Your task to perform on an android device: manage bookmarks in the chrome app Image 0: 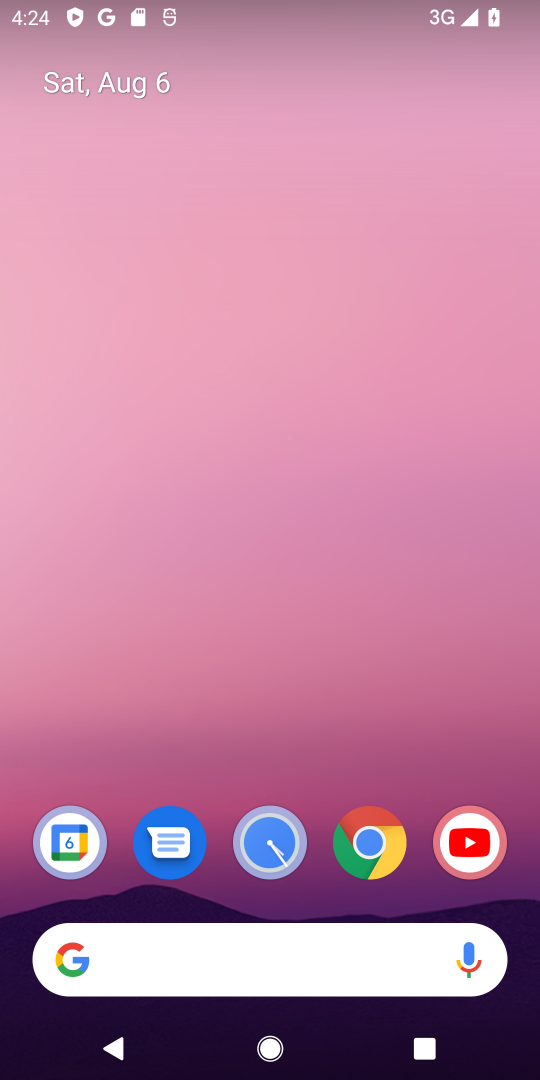
Step 0: click (371, 840)
Your task to perform on an android device: manage bookmarks in the chrome app Image 1: 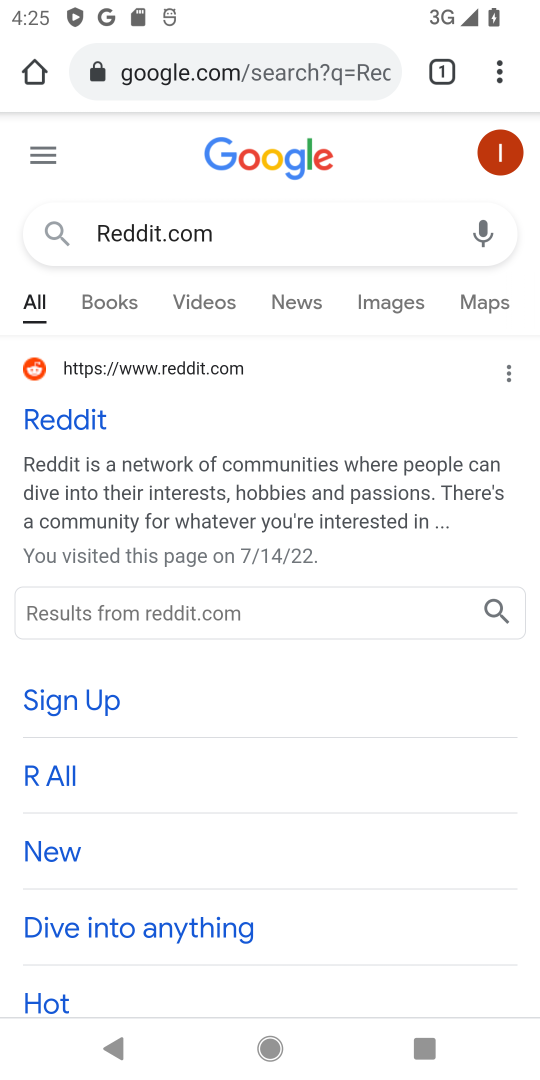
Step 1: drag from (367, 909) to (339, 468)
Your task to perform on an android device: manage bookmarks in the chrome app Image 2: 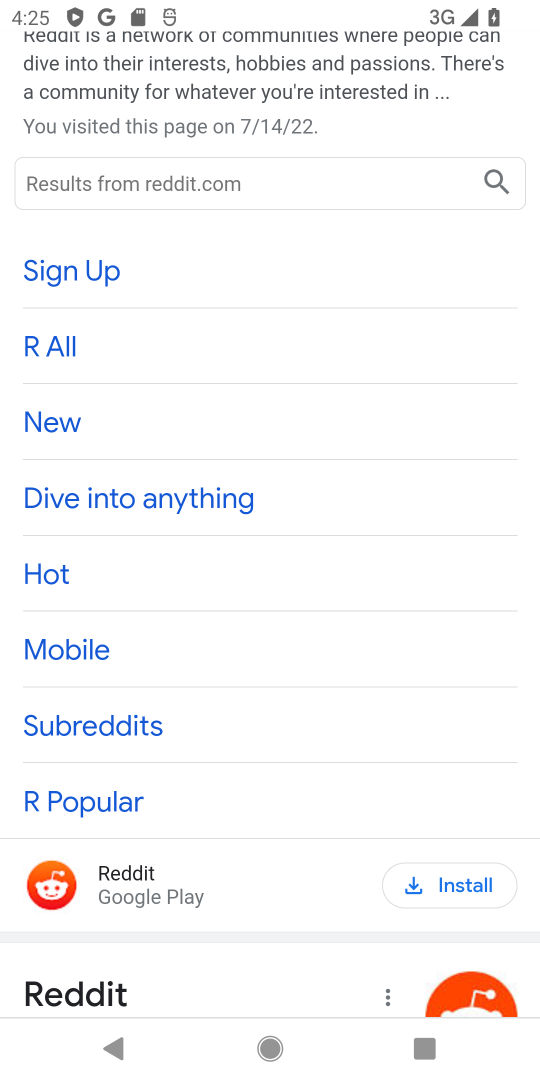
Step 2: drag from (384, 256) to (436, 919)
Your task to perform on an android device: manage bookmarks in the chrome app Image 3: 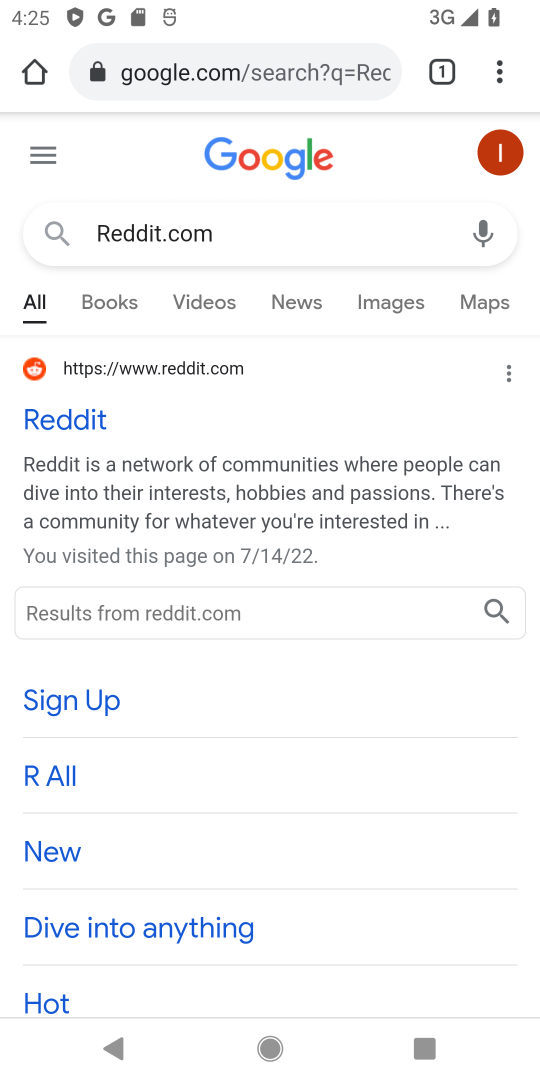
Step 3: click (499, 71)
Your task to perform on an android device: manage bookmarks in the chrome app Image 4: 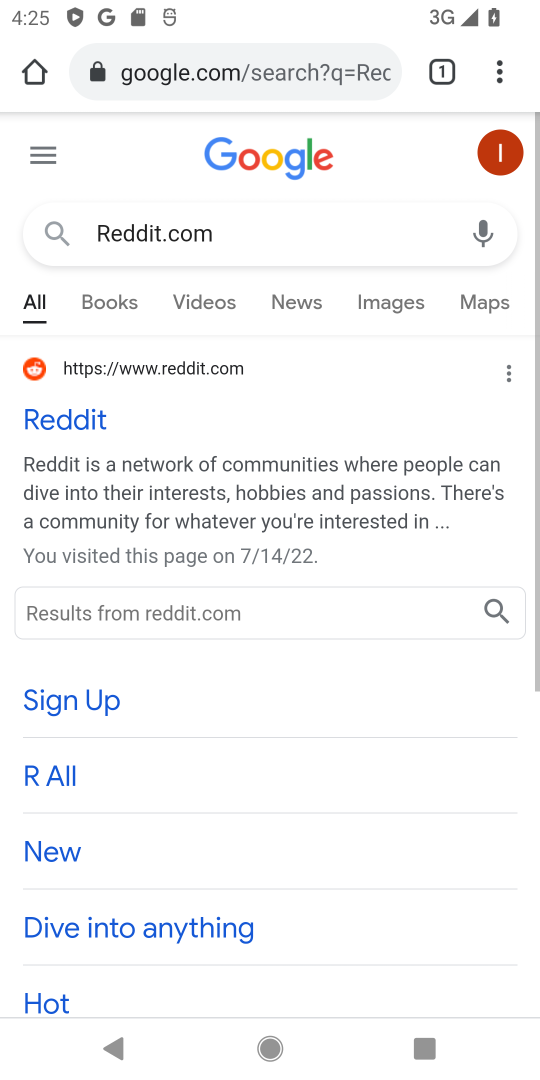
Step 4: click (499, 72)
Your task to perform on an android device: manage bookmarks in the chrome app Image 5: 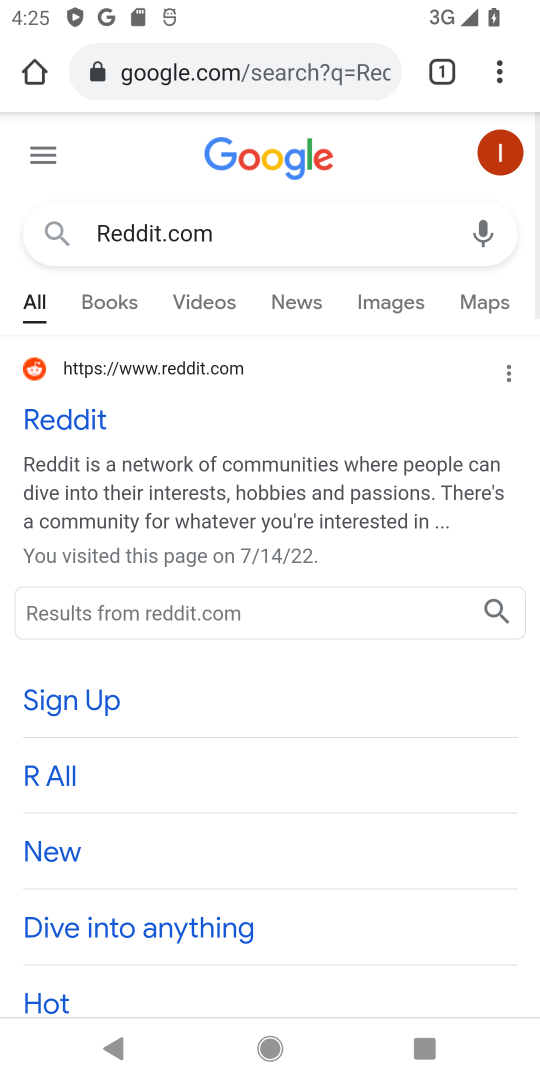
Step 5: click (499, 72)
Your task to perform on an android device: manage bookmarks in the chrome app Image 6: 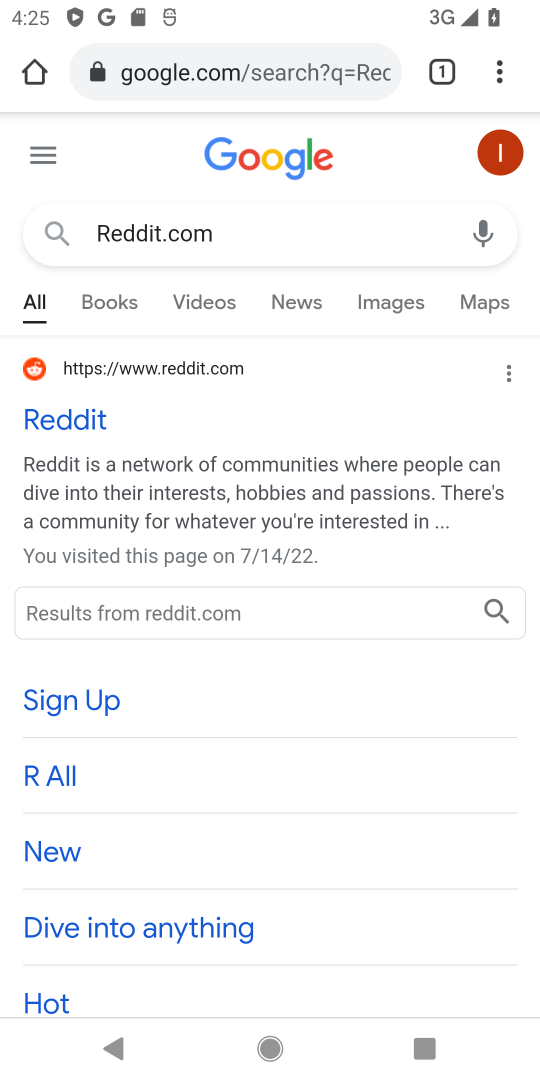
Step 6: click (499, 72)
Your task to perform on an android device: manage bookmarks in the chrome app Image 7: 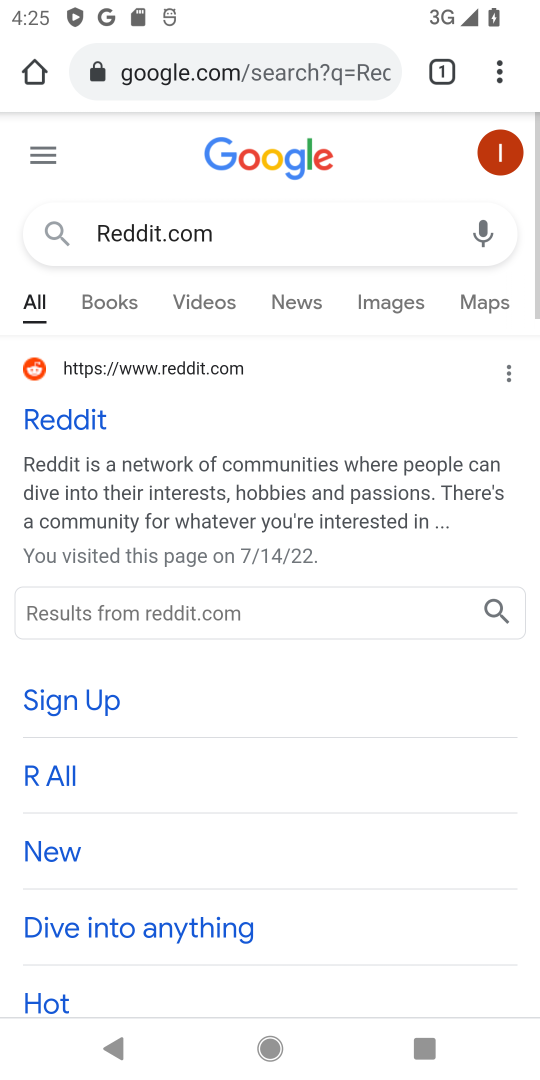
Step 7: click (499, 72)
Your task to perform on an android device: manage bookmarks in the chrome app Image 8: 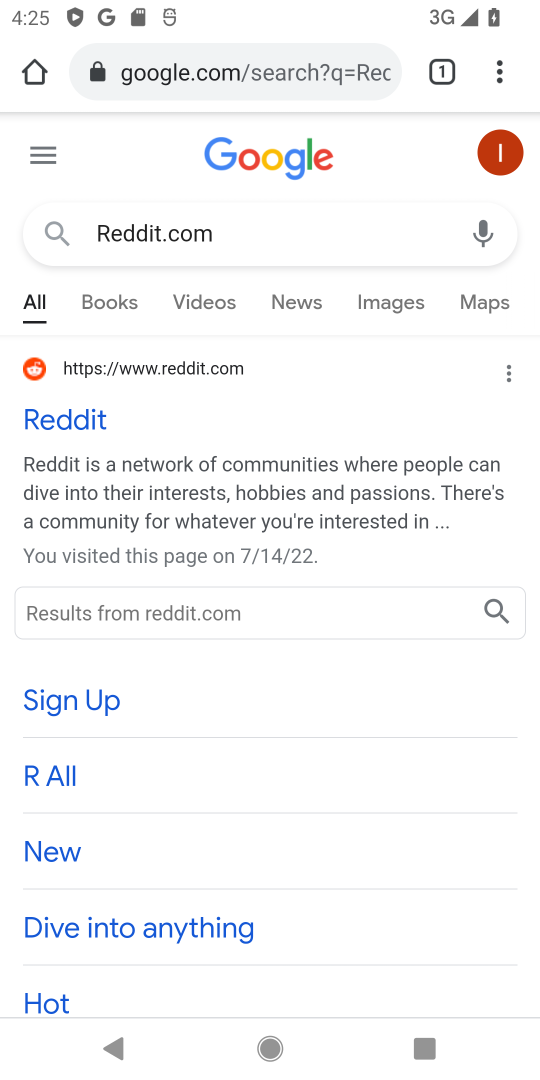
Step 8: click (493, 68)
Your task to perform on an android device: manage bookmarks in the chrome app Image 9: 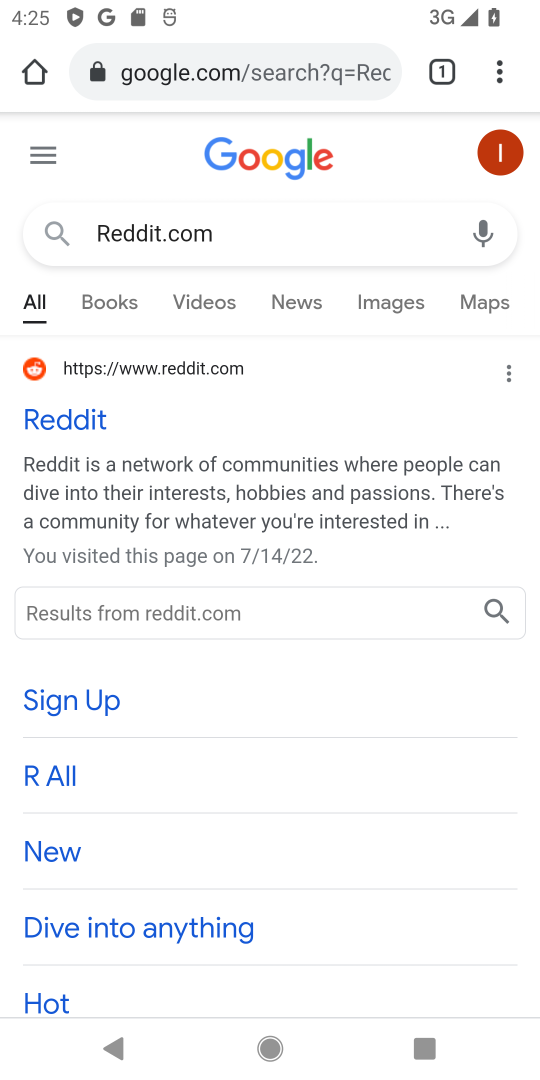
Step 9: click (512, 94)
Your task to perform on an android device: manage bookmarks in the chrome app Image 10: 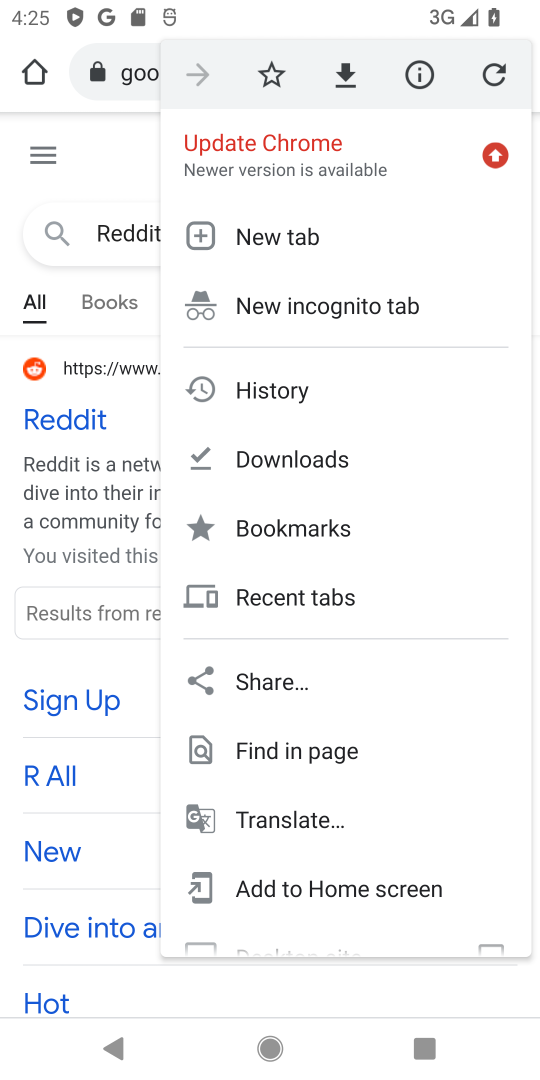
Step 10: click (281, 527)
Your task to perform on an android device: manage bookmarks in the chrome app Image 11: 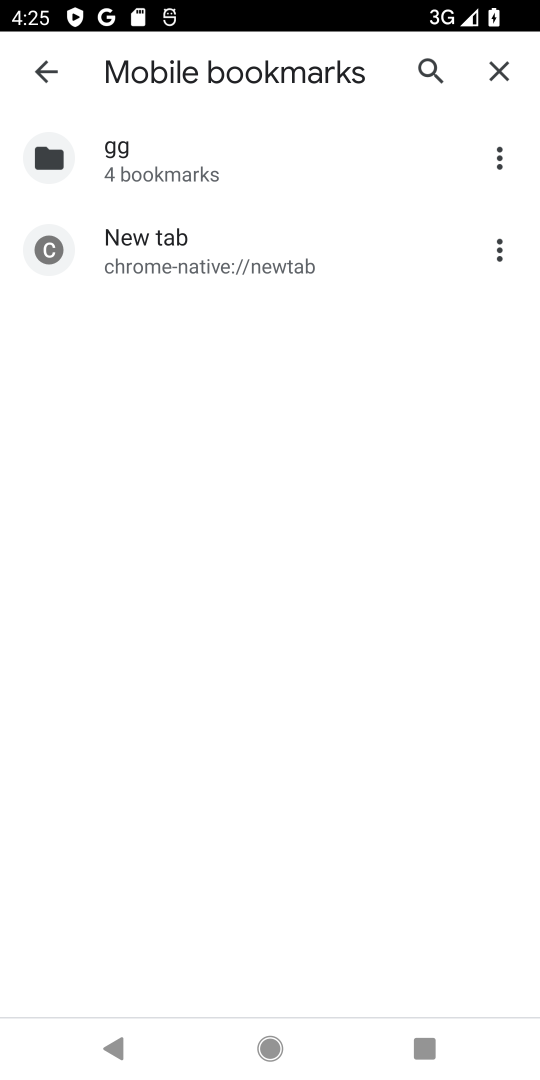
Step 11: click (165, 163)
Your task to perform on an android device: manage bookmarks in the chrome app Image 12: 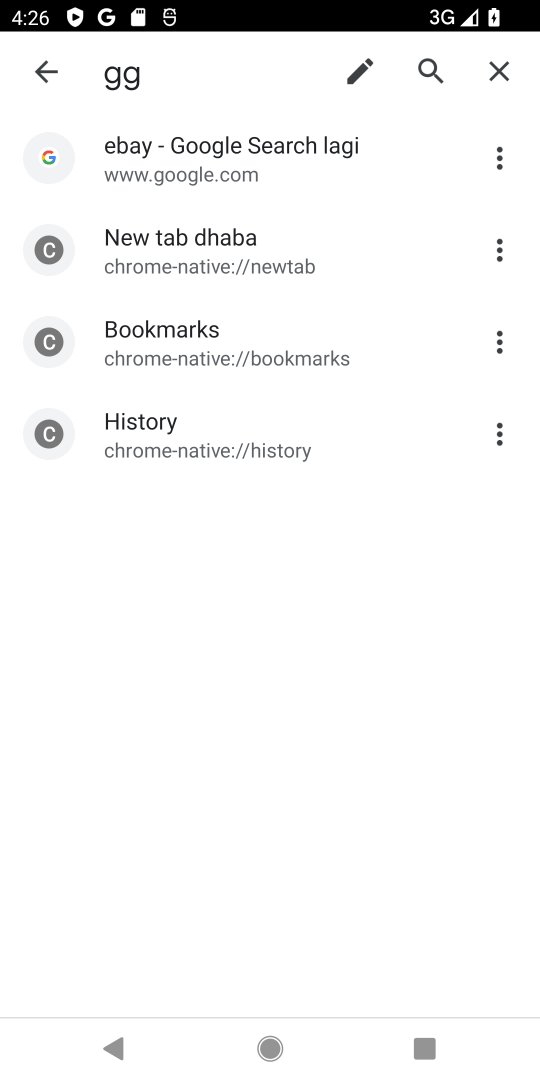
Step 12: click (509, 438)
Your task to perform on an android device: manage bookmarks in the chrome app Image 13: 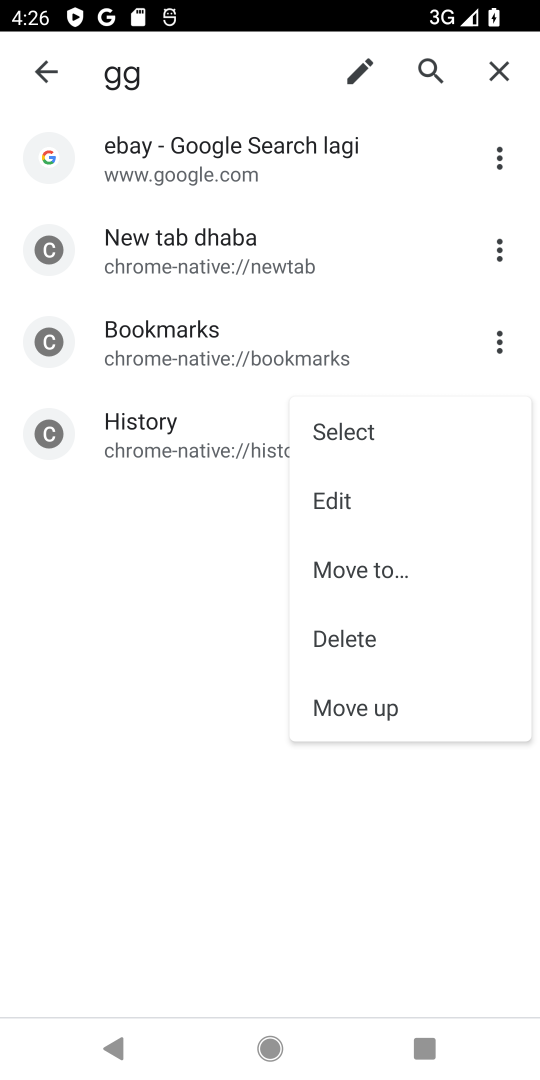
Step 13: click (331, 641)
Your task to perform on an android device: manage bookmarks in the chrome app Image 14: 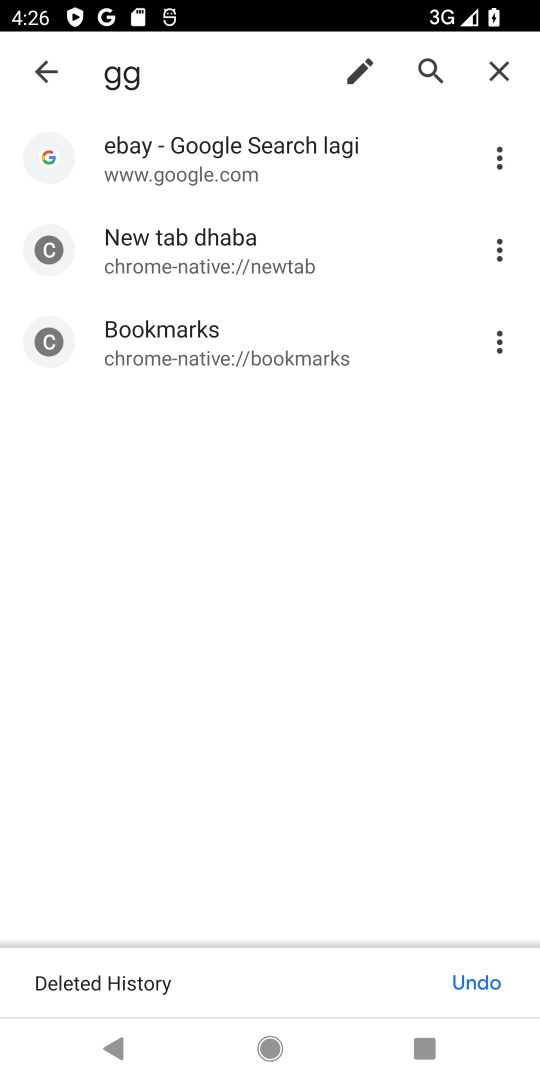
Step 14: task complete